Your task to perform on an android device: Find coffee shops on Maps Image 0: 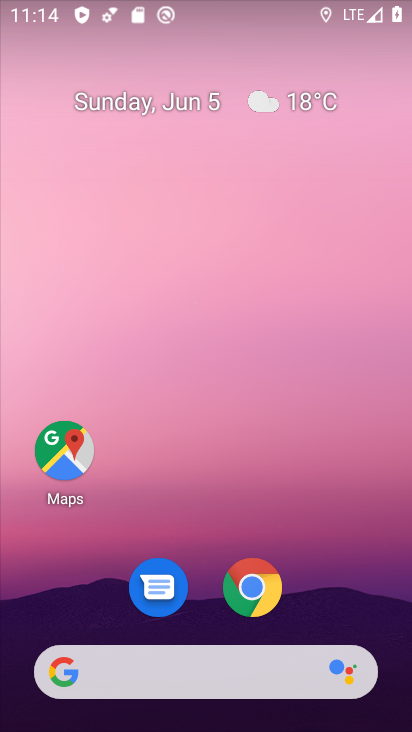
Step 0: drag from (245, 13) to (268, 393)
Your task to perform on an android device: Find coffee shops on Maps Image 1: 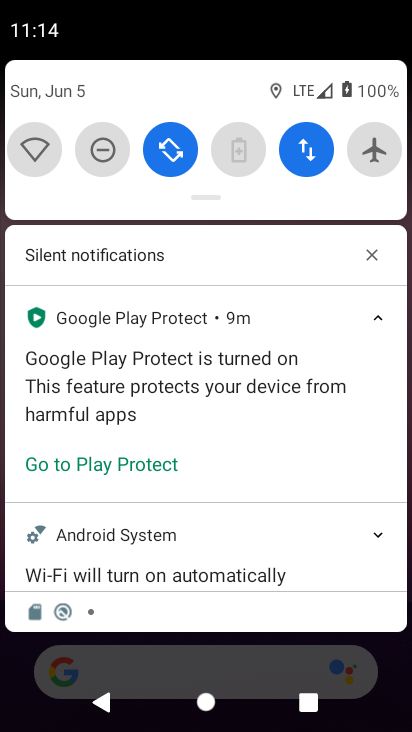
Step 1: click (297, 153)
Your task to perform on an android device: Find coffee shops on Maps Image 2: 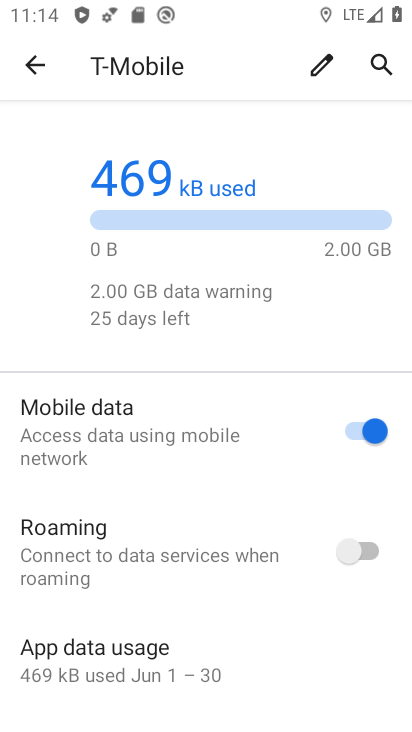
Step 2: task complete